Your task to perform on an android device: install app "Chime – Mobile Banking" Image 0: 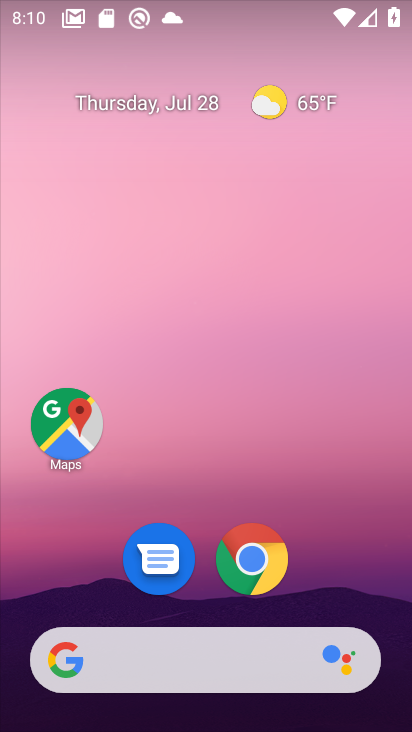
Step 0: drag from (204, 595) to (195, 30)
Your task to perform on an android device: install app "Chime – Mobile Banking" Image 1: 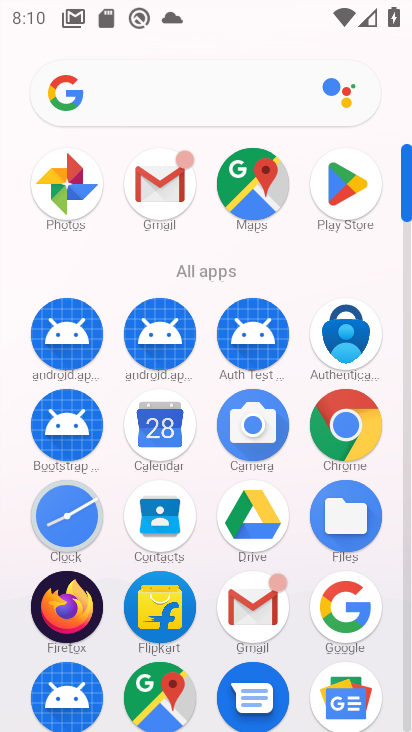
Step 1: click (336, 198)
Your task to perform on an android device: install app "Chime – Mobile Banking" Image 2: 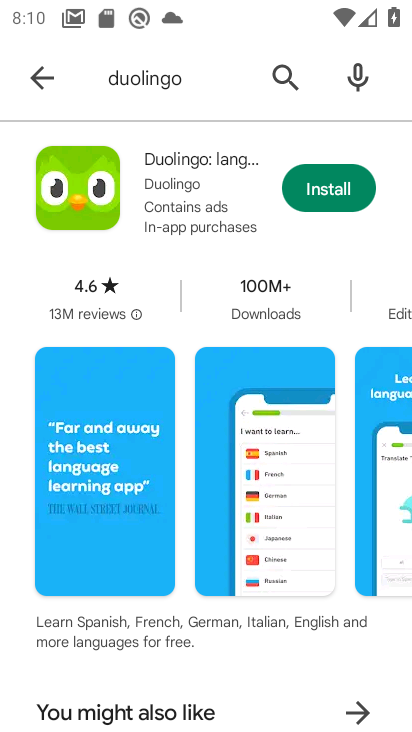
Step 2: click (186, 75)
Your task to perform on an android device: install app "Chime – Mobile Banking" Image 3: 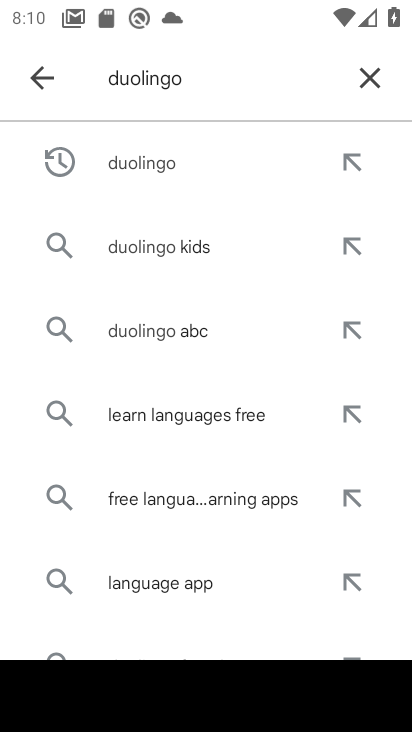
Step 3: click (375, 75)
Your task to perform on an android device: install app "Chime – Mobile Banking" Image 4: 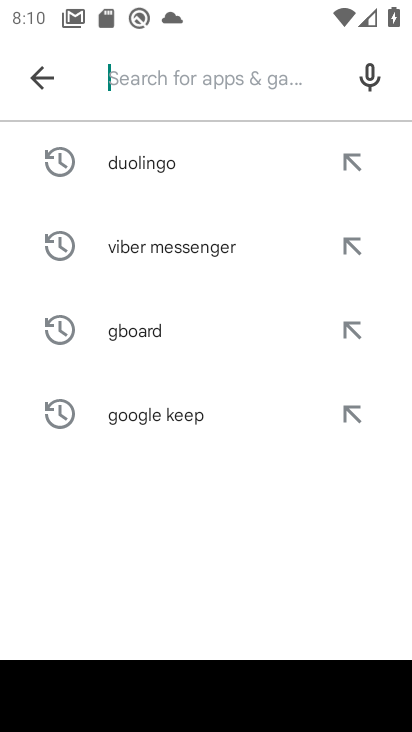
Step 4: type "Chime"
Your task to perform on an android device: install app "Chime – Mobile Banking" Image 5: 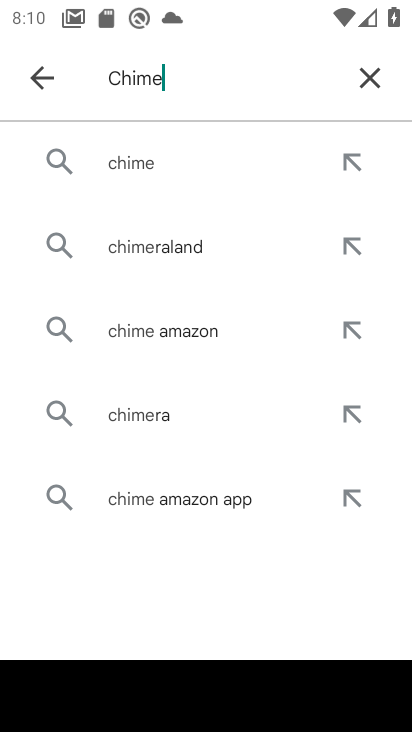
Step 5: click (165, 172)
Your task to perform on an android device: install app "Chime – Mobile Banking" Image 6: 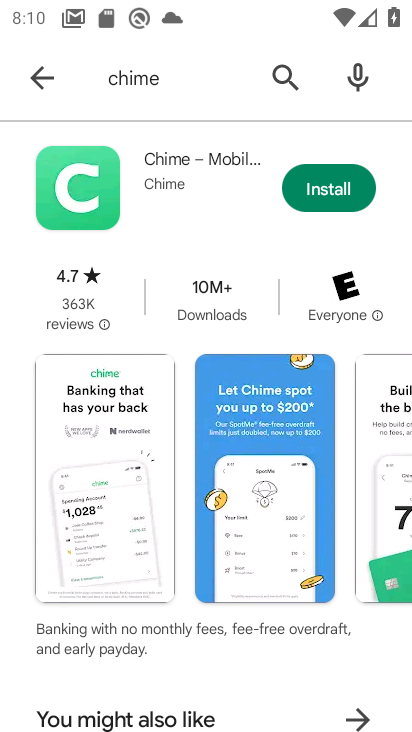
Step 6: click (334, 190)
Your task to perform on an android device: install app "Chime – Mobile Banking" Image 7: 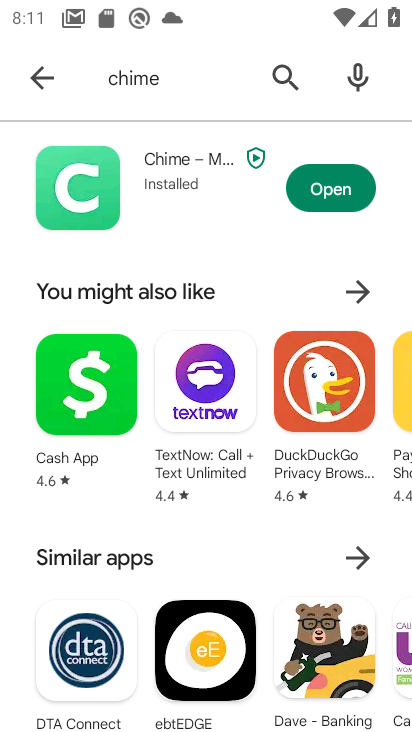
Step 7: task complete